Your task to perform on an android device: turn on data saver in the chrome app Image 0: 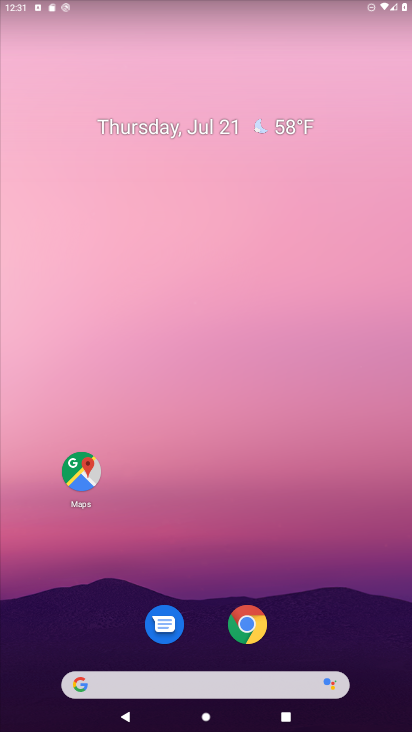
Step 0: click (246, 619)
Your task to perform on an android device: turn on data saver in the chrome app Image 1: 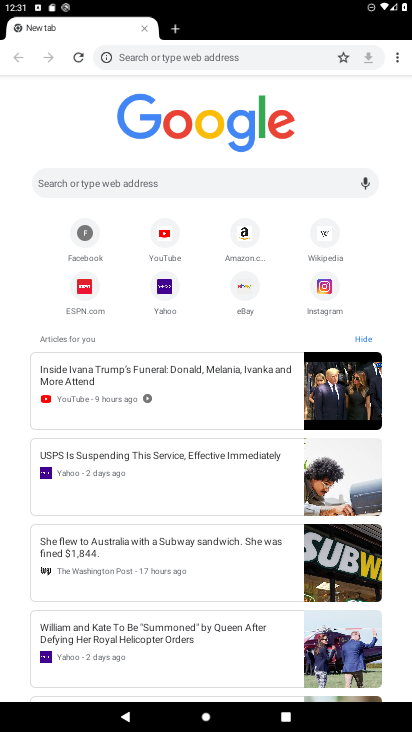
Step 1: click (391, 51)
Your task to perform on an android device: turn on data saver in the chrome app Image 2: 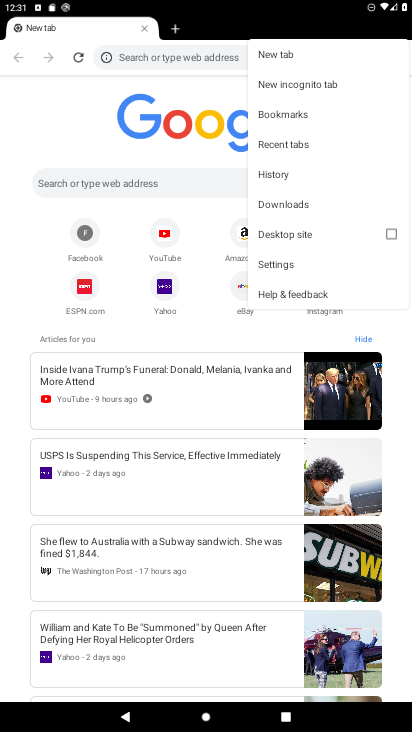
Step 2: click (303, 264)
Your task to perform on an android device: turn on data saver in the chrome app Image 3: 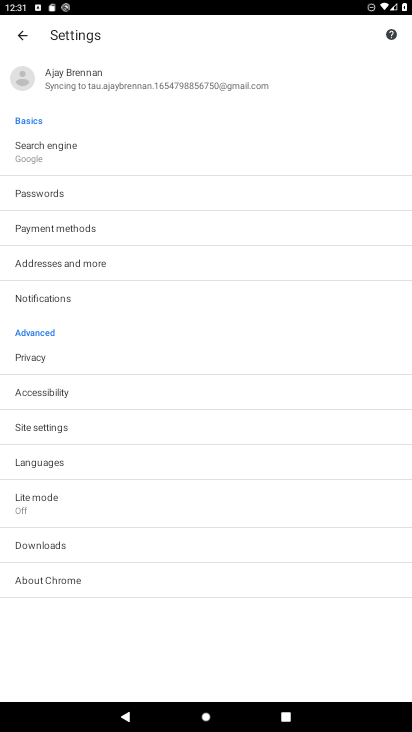
Step 3: click (93, 421)
Your task to perform on an android device: turn on data saver in the chrome app Image 4: 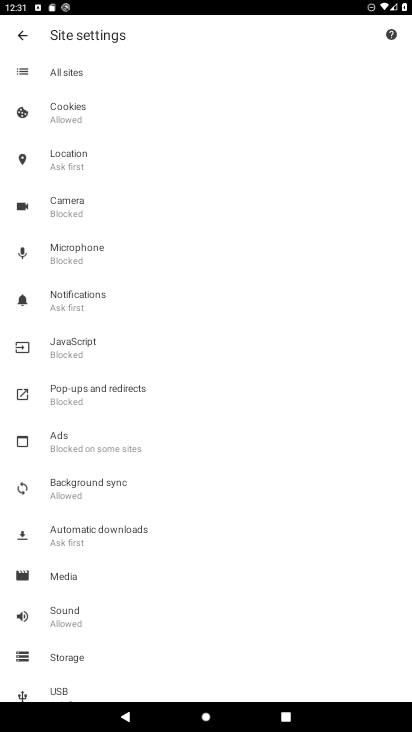
Step 4: click (51, 339)
Your task to perform on an android device: turn on data saver in the chrome app Image 5: 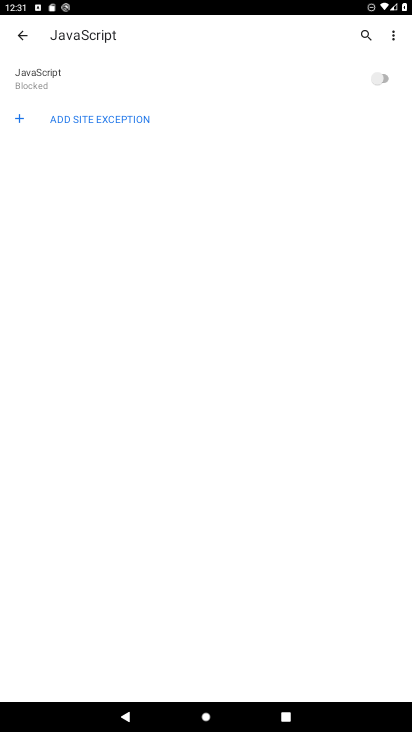
Step 5: click (18, 39)
Your task to perform on an android device: turn on data saver in the chrome app Image 6: 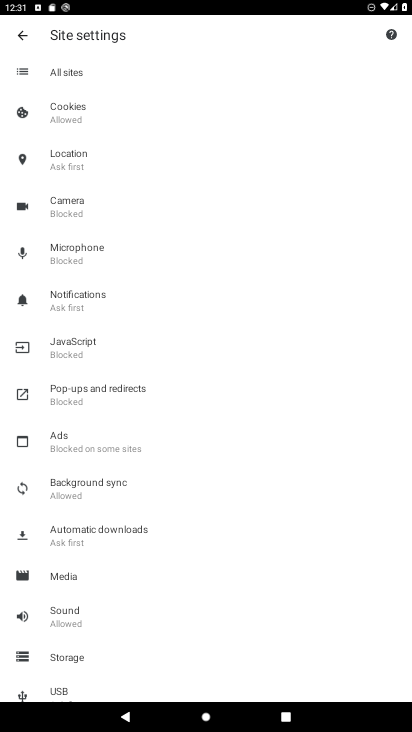
Step 6: click (25, 37)
Your task to perform on an android device: turn on data saver in the chrome app Image 7: 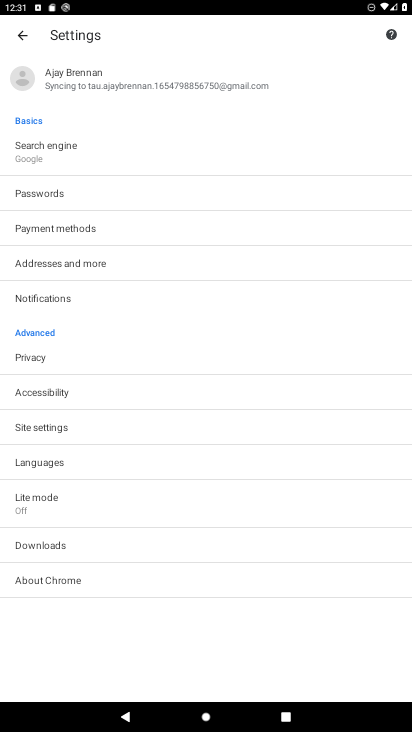
Step 7: click (46, 505)
Your task to perform on an android device: turn on data saver in the chrome app Image 8: 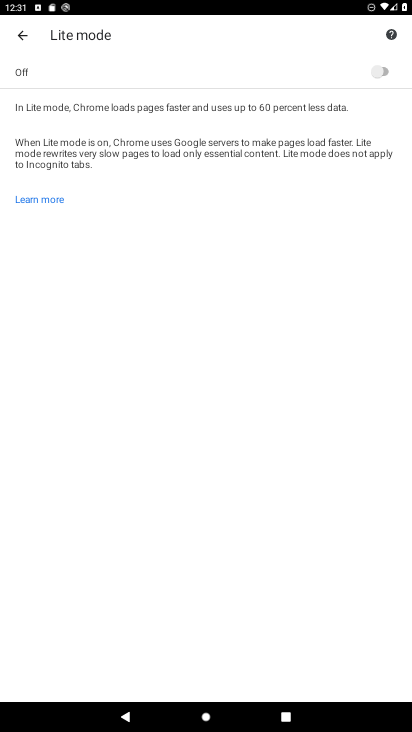
Step 8: click (386, 77)
Your task to perform on an android device: turn on data saver in the chrome app Image 9: 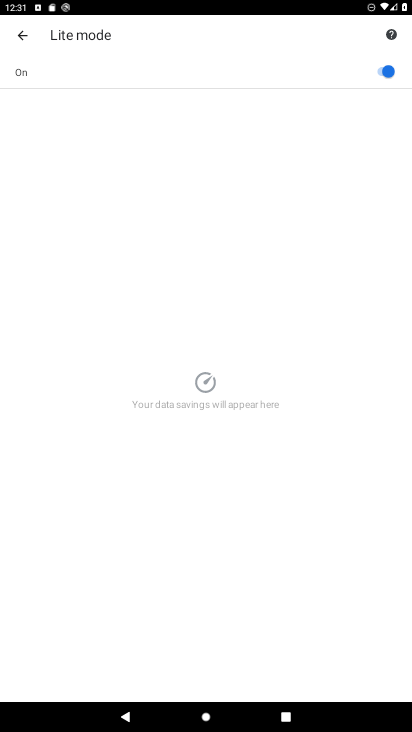
Step 9: task complete